Your task to perform on an android device: Open Youtube and go to "Your channel" Image 0: 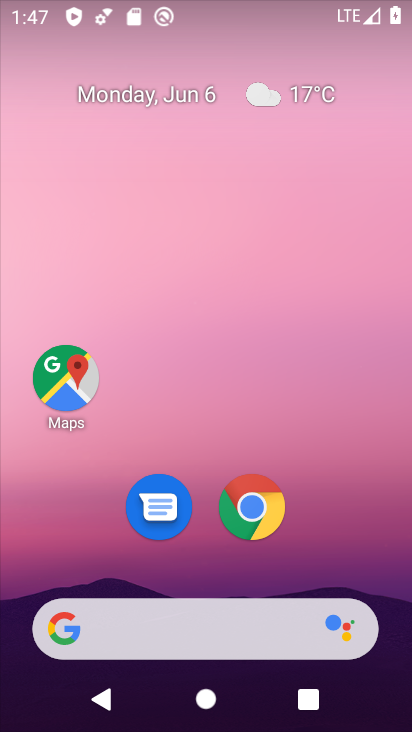
Step 0: drag from (357, 569) to (270, 211)
Your task to perform on an android device: Open Youtube and go to "Your channel" Image 1: 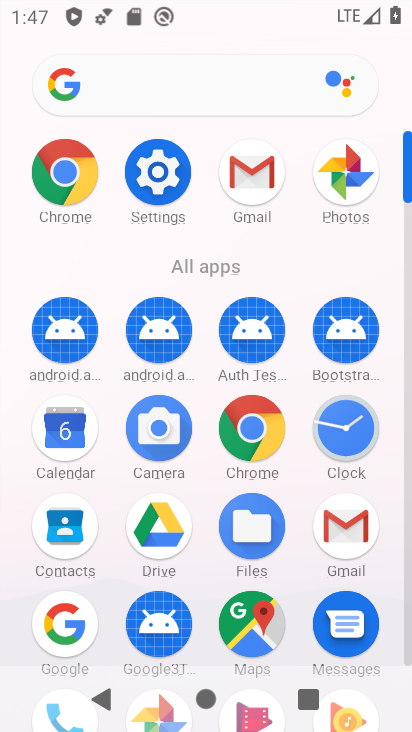
Step 1: click (409, 665)
Your task to perform on an android device: Open Youtube and go to "Your channel" Image 2: 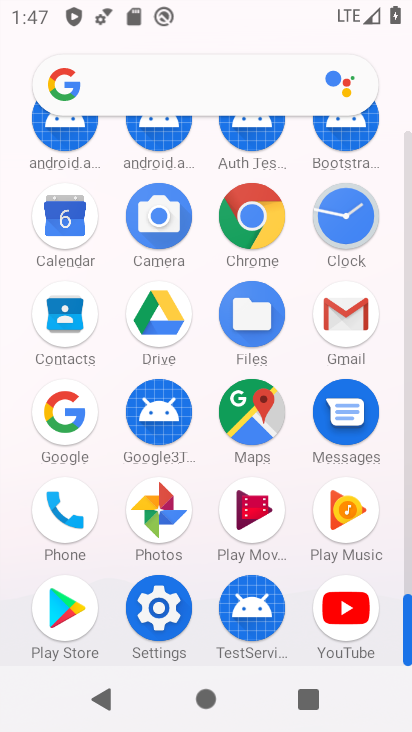
Step 2: click (346, 625)
Your task to perform on an android device: Open Youtube and go to "Your channel" Image 3: 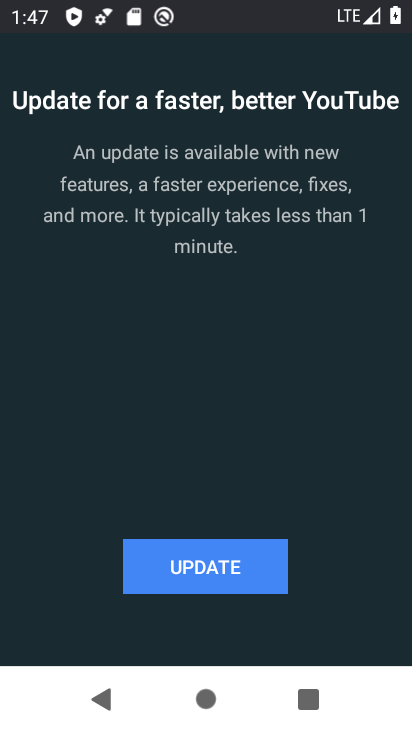
Step 3: click (278, 588)
Your task to perform on an android device: Open Youtube and go to "Your channel" Image 4: 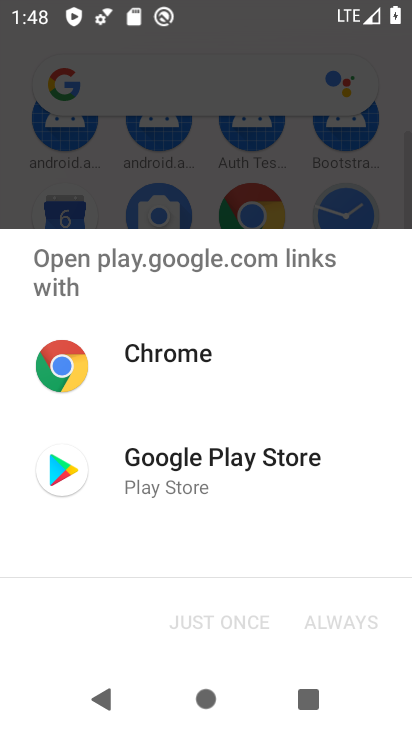
Step 4: click (228, 492)
Your task to perform on an android device: Open Youtube and go to "Your channel" Image 5: 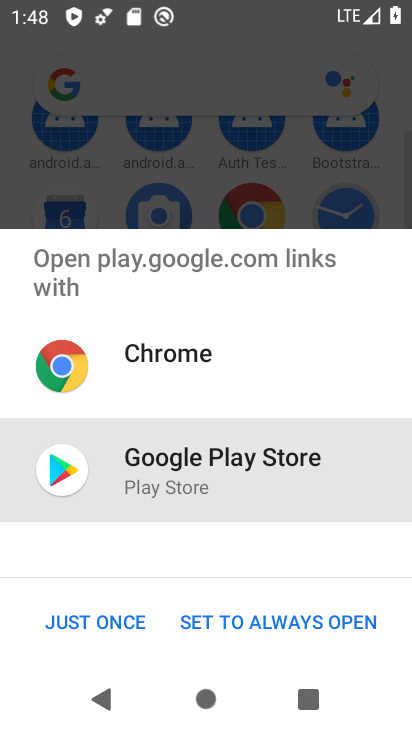
Step 5: drag from (230, 625) to (149, 626)
Your task to perform on an android device: Open Youtube and go to "Your channel" Image 6: 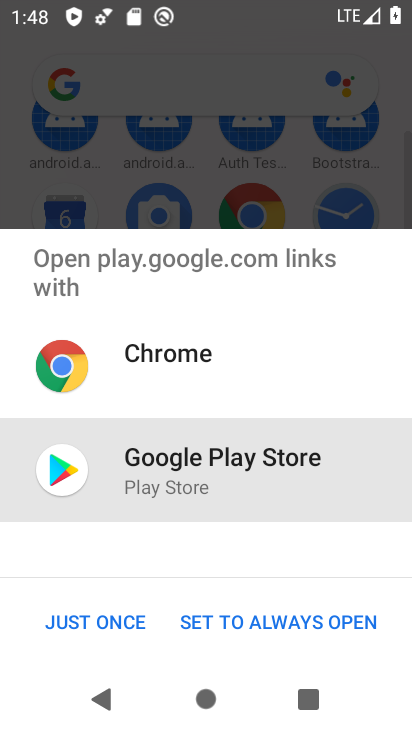
Step 6: click (149, 626)
Your task to perform on an android device: Open Youtube and go to "Your channel" Image 7: 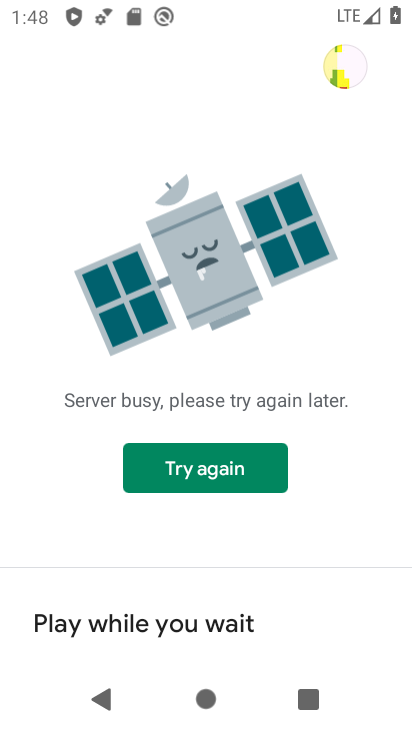
Step 7: task complete